Your task to perform on an android device: Go to sound settings Image 0: 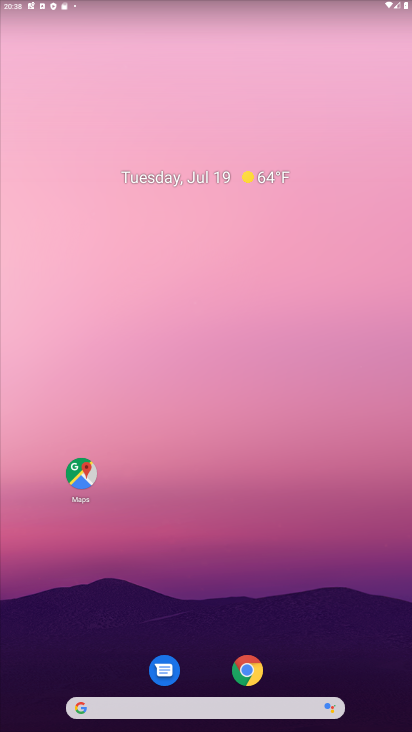
Step 0: drag from (228, 699) to (322, 93)
Your task to perform on an android device: Go to sound settings Image 1: 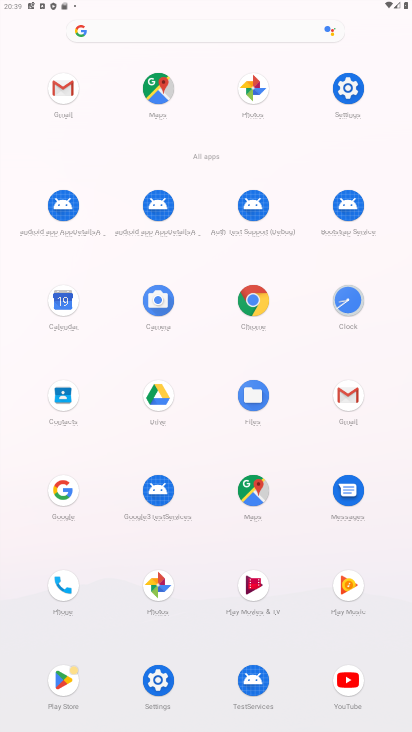
Step 1: click (364, 85)
Your task to perform on an android device: Go to sound settings Image 2: 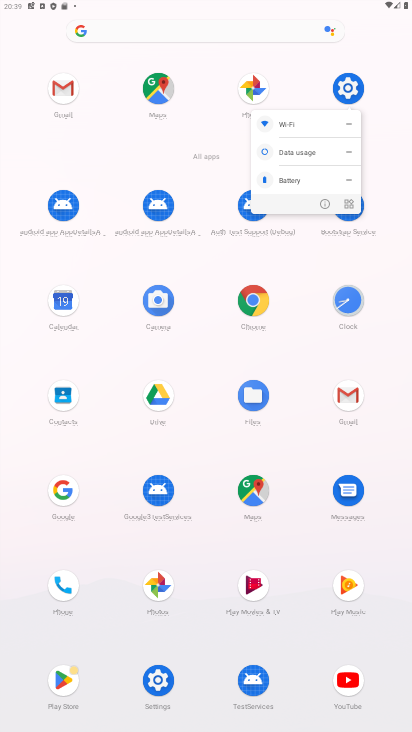
Step 2: click (347, 81)
Your task to perform on an android device: Go to sound settings Image 3: 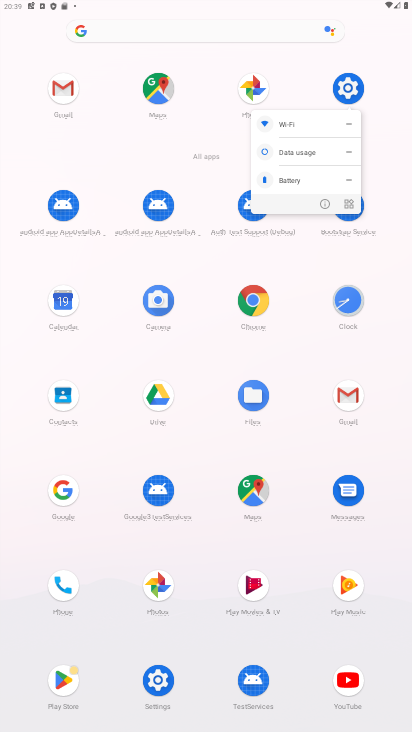
Step 3: click (347, 81)
Your task to perform on an android device: Go to sound settings Image 4: 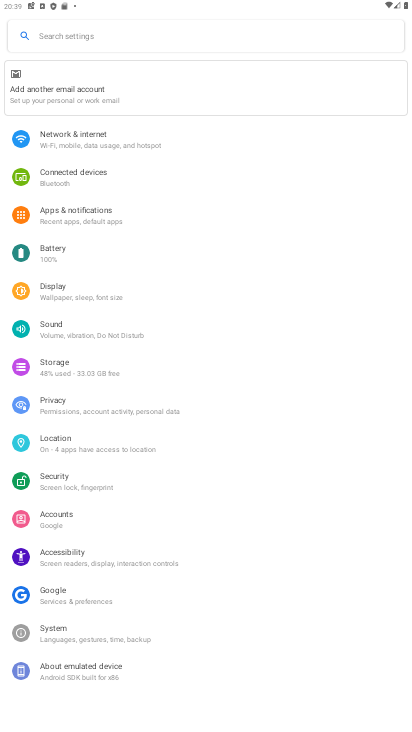
Step 4: click (83, 331)
Your task to perform on an android device: Go to sound settings Image 5: 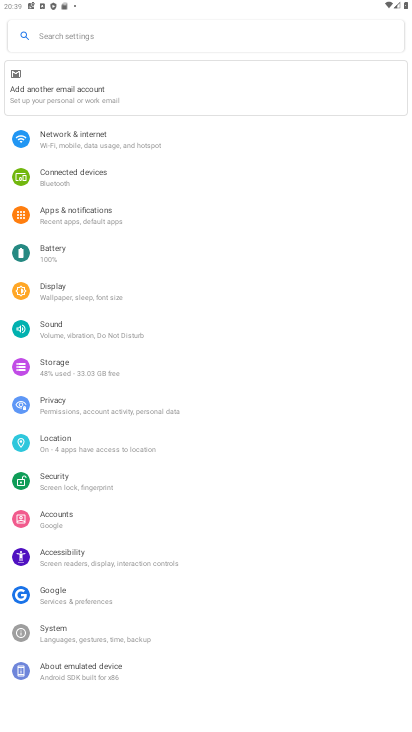
Step 5: click (83, 331)
Your task to perform on an android device: Go to sound settings Image 6: 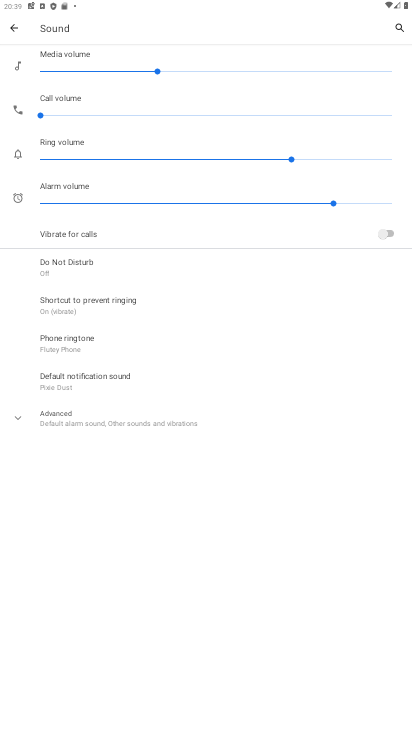
Step 6: task complete